Your task to perform on an android device: Go to internet settings Image 0: 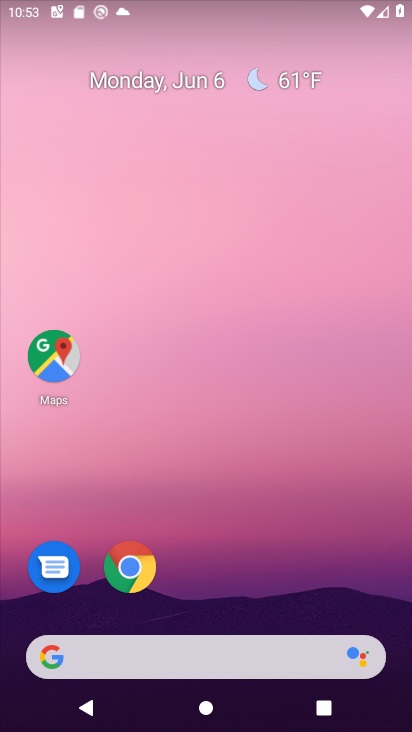
Step 0: drag from (239, 722) to (231, 41)
Your task to perform on an android device: Go to internet settings Image 1: 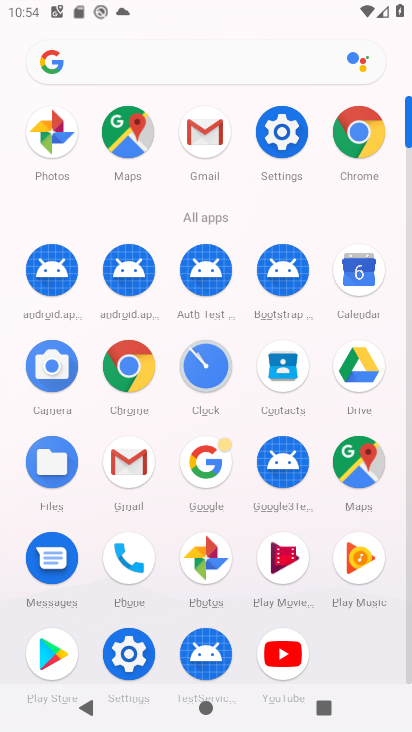
Step 1: click (289, 128)
Your task to perform on an android device: Go to internet settings Image 2: 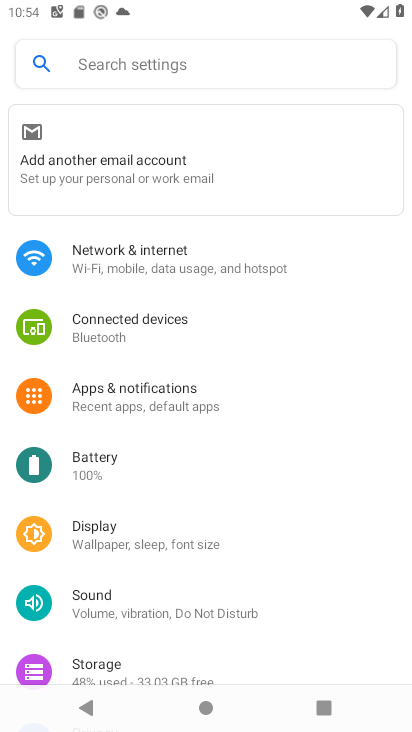
Step 2: click (129, 257)
Your task to perform on an android device: Go to internet settings Image 3: 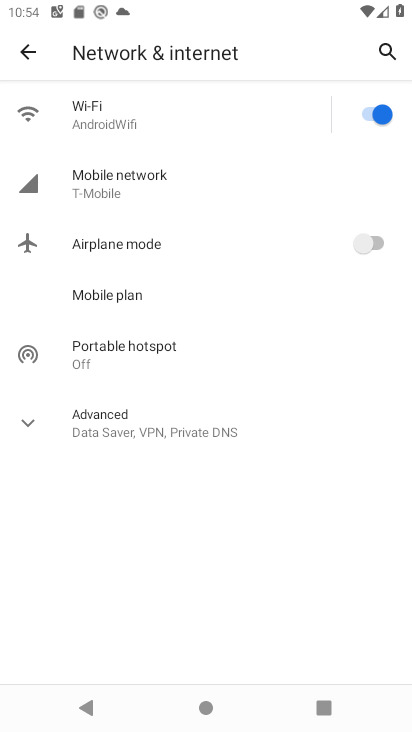
Step 3: task complete